Your task to perform on an android device: open a new tab in the chrome app Image 0: 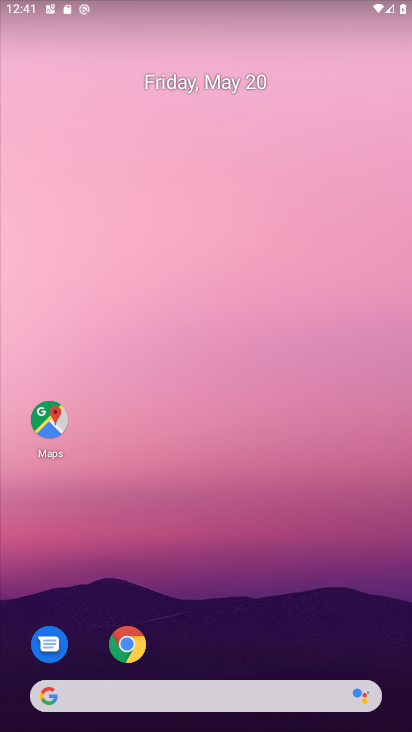
Step 0: click (119, 647)
Your task to perform on an android device: open a new tab in the chrome app Image 1: 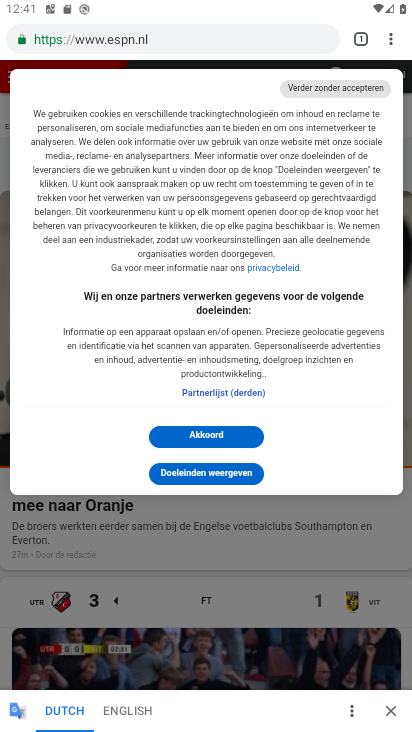
Step 1: click (390, 36)
Your task to perform on an android device: open a new tab in the chrome app Image 2: 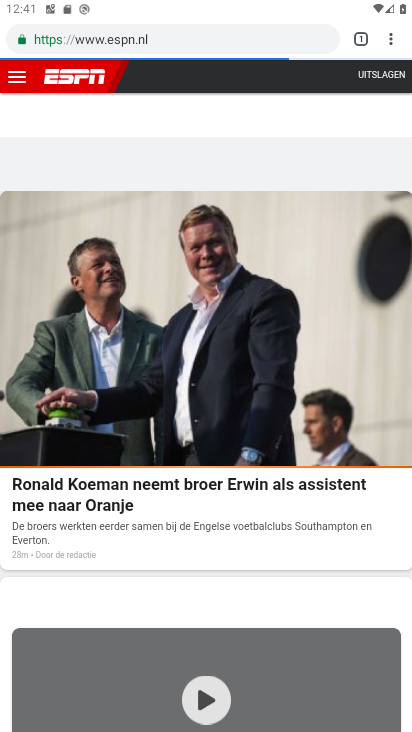
Step 2: click (392, 36)
Your task to perform on an android device: open a new tab in the chrome app Image 3: 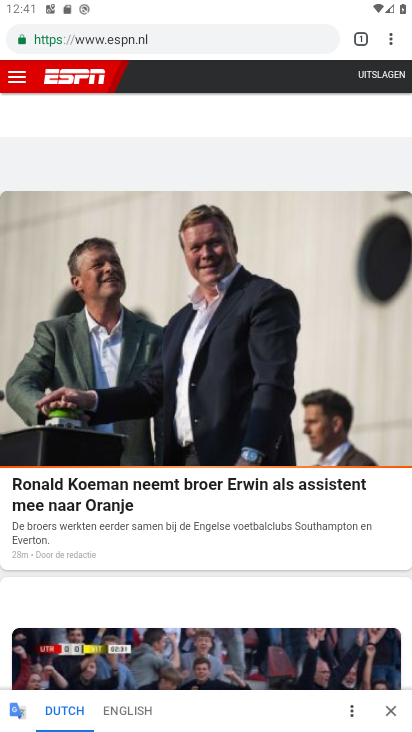
Step 3: click (387, 45)
Your task to perform on an android device: open a new tab in the chrome app Image 4: 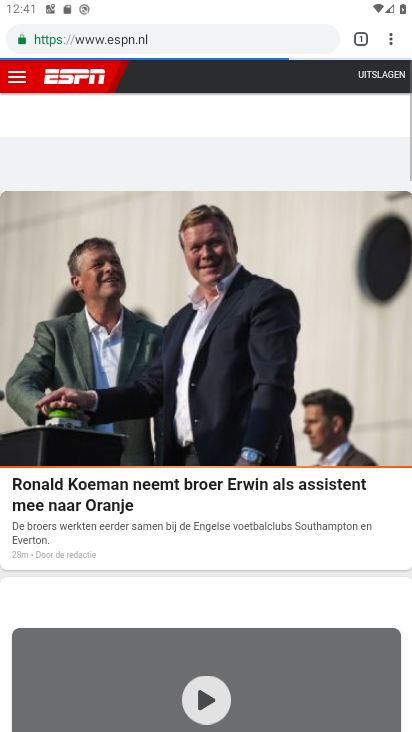
Step 4: click (393, 30)
Your task to perform on an android device: open a new tab in the chrome app Image 5: 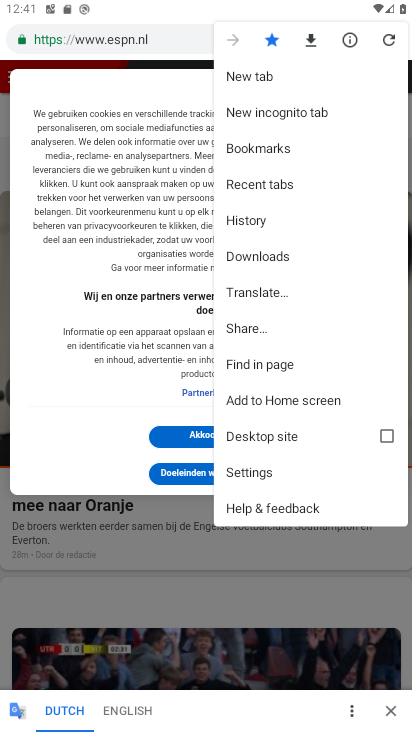
Step 5: click (277, 83)
Your task to perform on an android device: open a new tab in the chrome app Image 6: 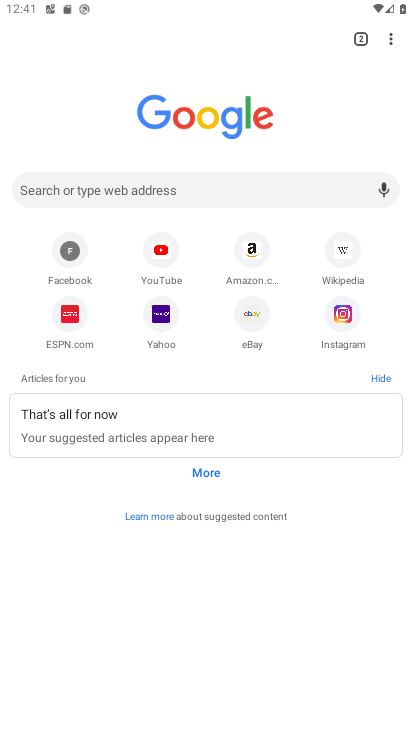
Step 6: task complete